Your task to perform on an android device: Open accessibility settings Image 0: 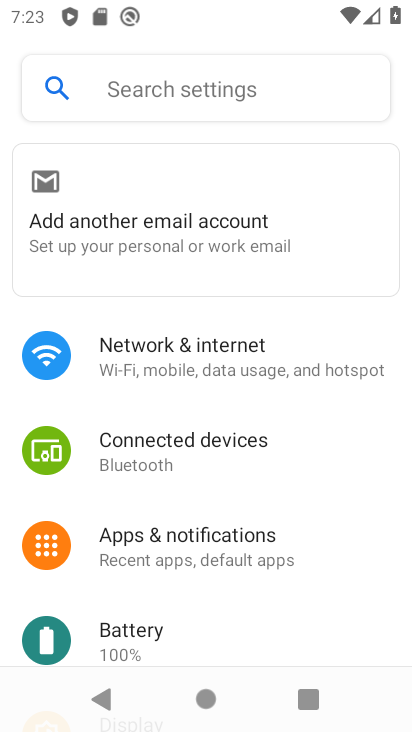
Step 0: press home button
Your task to perform on an android device: Open accessibility settings Image 1: 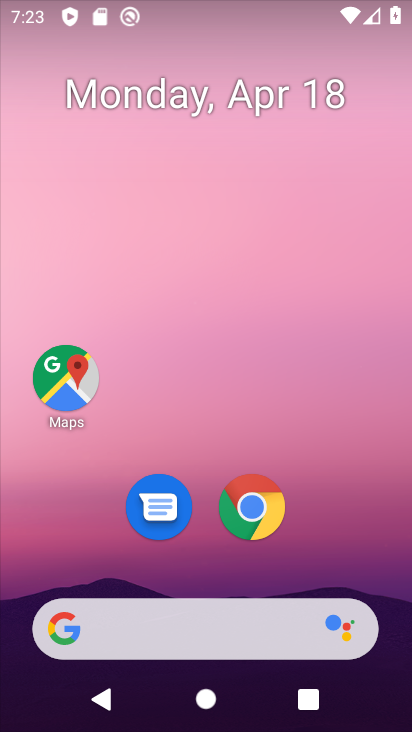
Step 1: drag from (11, 533) to (236, 0)
Your task to perform on an android device: Open accessibility settings Image 2: 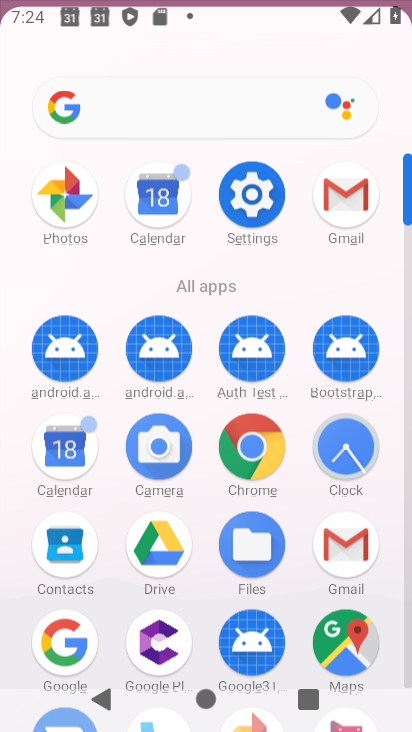
Step 2: click (237, 192)
Your task to perform on an android device: Open accessibility settings Image 3: 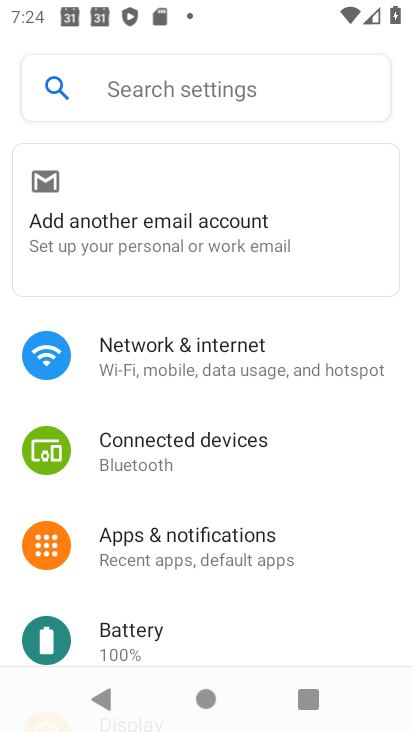
Step 3: drag from (185, 580) to (300, 113)
Your task to perform on an android device: Open accessibility settings Image 4: 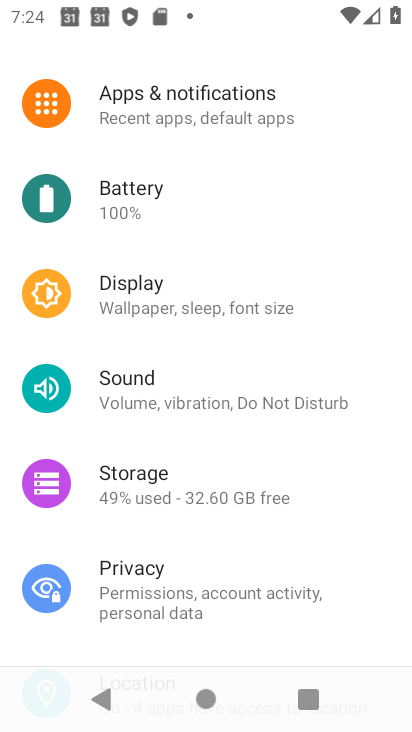
Step 4: drag from (146, 560) to (251, 69)
Your task to perform on an android device: Open accessibility settings Image 5: 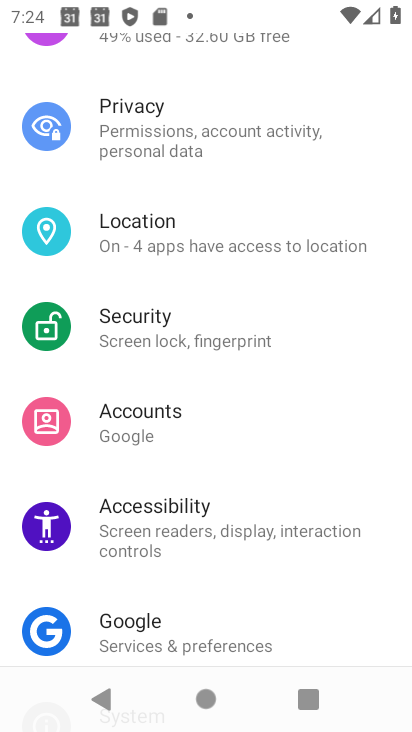
Step 5: click (209, 523)
Your task to perform on an android device: Open accessibility settings Image 6: 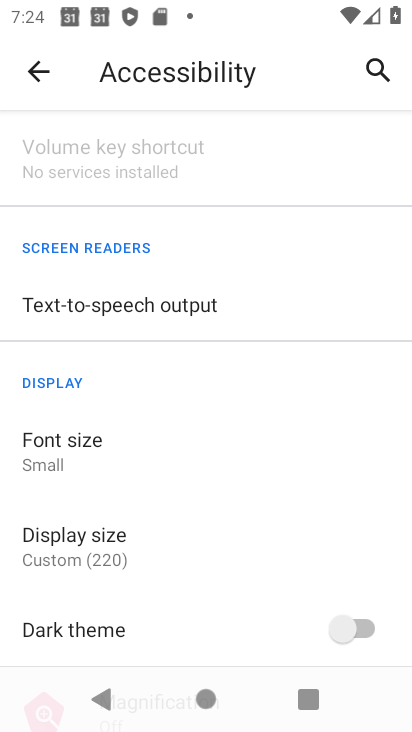
Step 6: task complete